Your task to perform on an android device: create a new album in the google photos Image 0: 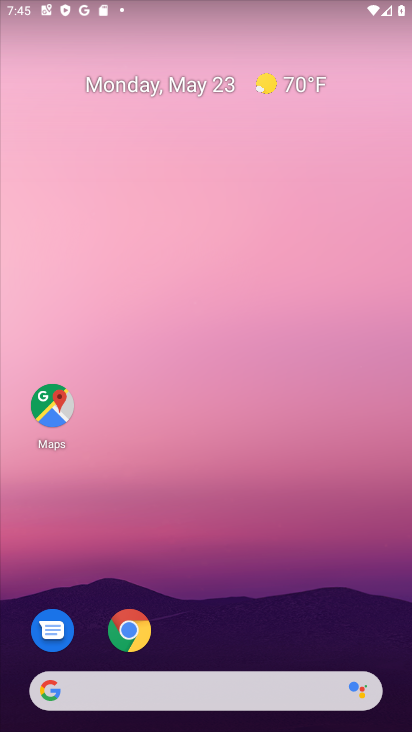
Step 0: drag from (269, 624) to (172, 211)
Your task to perform on an android device: create a new album in the google photos Image 1: 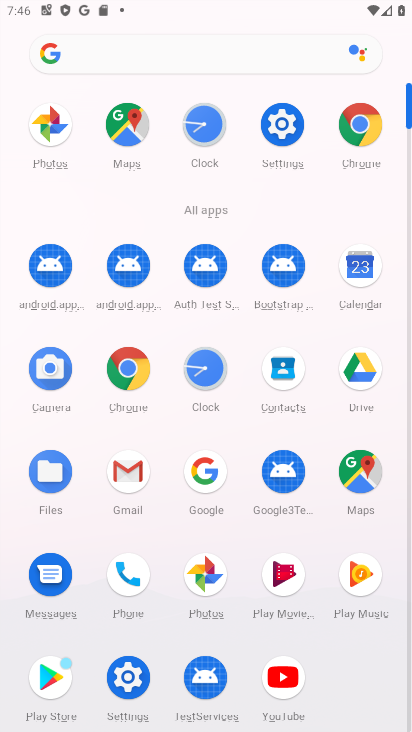
Step 1: click (44, 131)
Your task to perform on an android device: create a new album in the google photos Image 2: 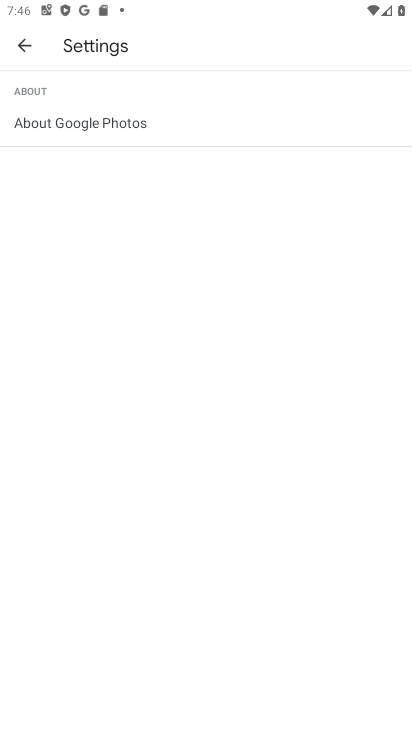
Step 2: click (25, 42)
Your task to perform on an android device: create a new album in the google photos Image 3: 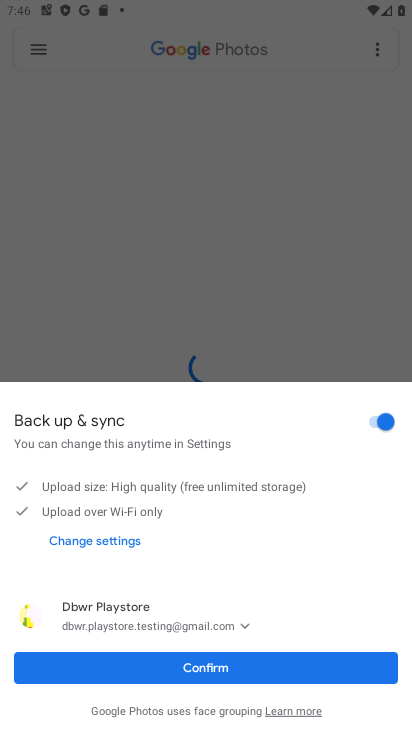
Step 3: click (324, 669)
Your task to perform on an android device: create a new album in the google photos Image 4: 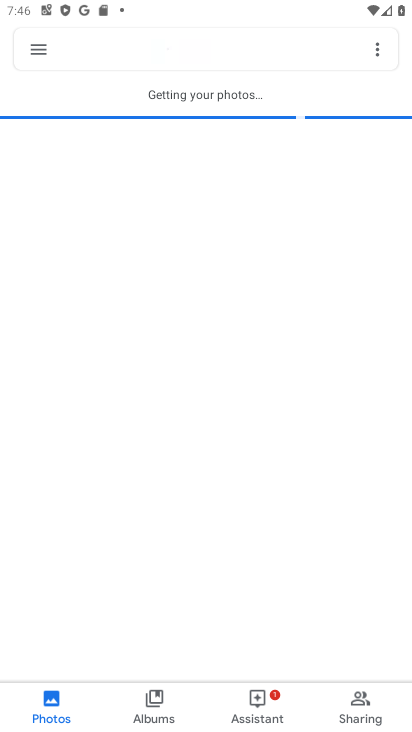
Step 4: click (138, 713)
Your task to perform on an android device: create a new album in the google photos Image 5: 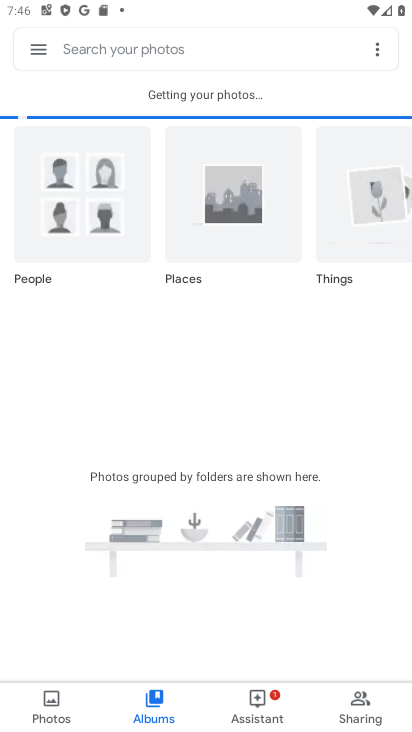
Step 5: click (382, 43)
Your task to perform on an android device: create a new album in the google photos Image 6: 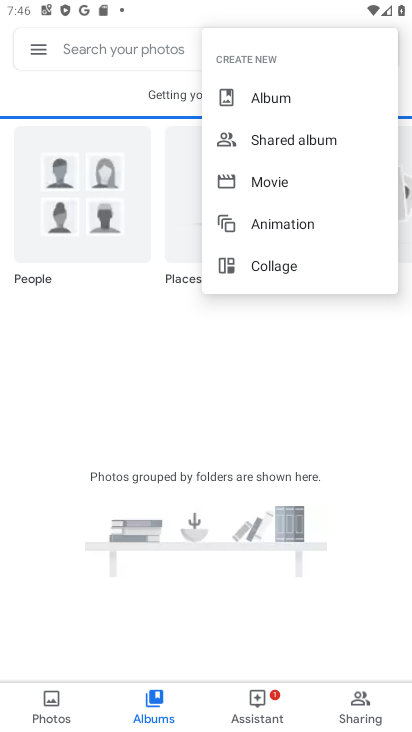
Step 6: click (297, 105)
Your task to perform on an android device: create a new album in the google photos Image 7: 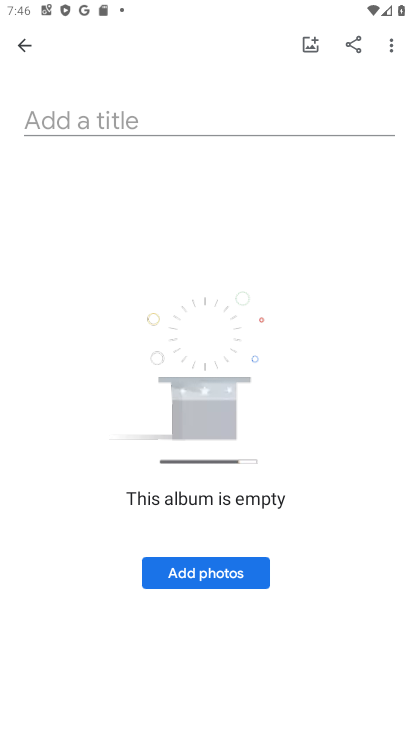
Step 7: click (196, 117)
Your task to perform on an android device: create a new album in the google photos Image 8: 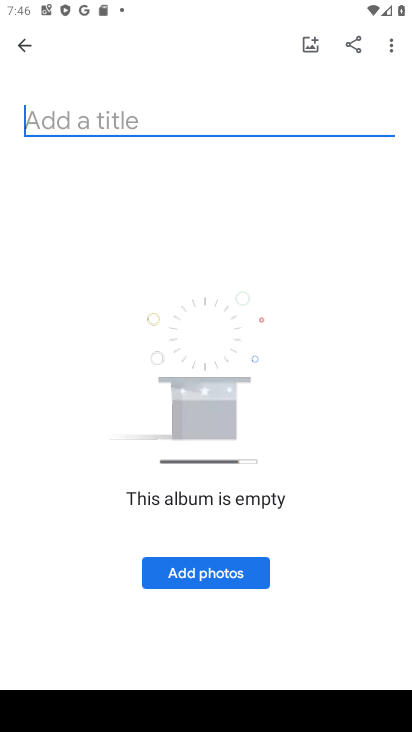
Step 8: type "pooja singhl"
Your task to perform on an android device: create a new album in the google photos Image 9: 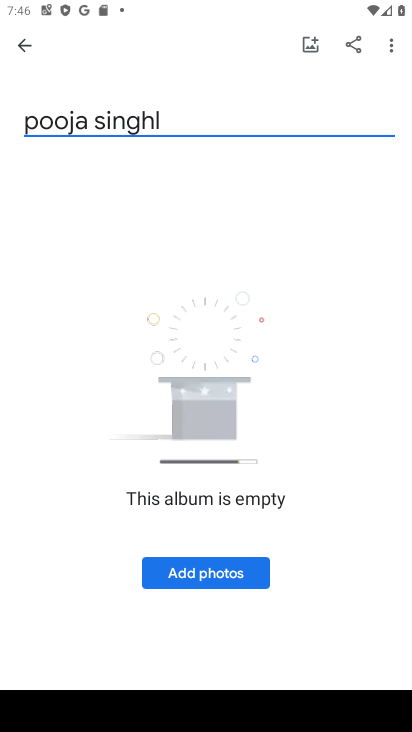
Step 9: click (174, 574)
Your task to perform on an android device: create a new album in the google photos Image 10: 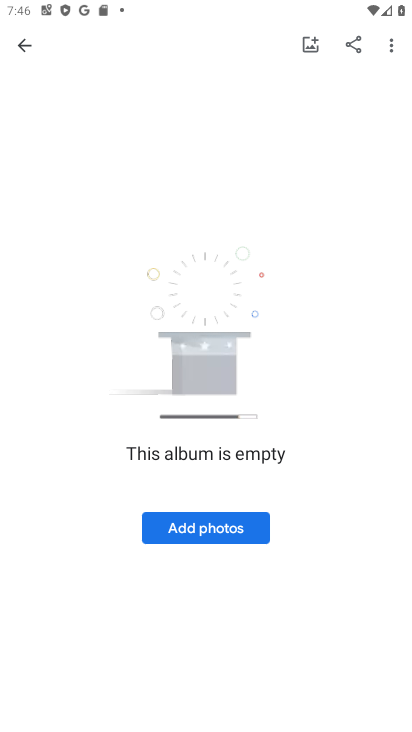
Step 10: click (179, 535)
Your task to perform on an android device: create a new album in the google photos Image 11: 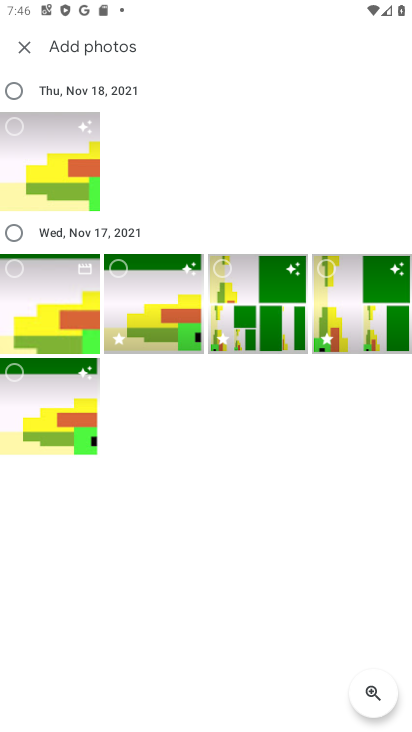
Step 11: click (12, 155)
Your task to perform on an android device: create a new album in the google photos Image 12: 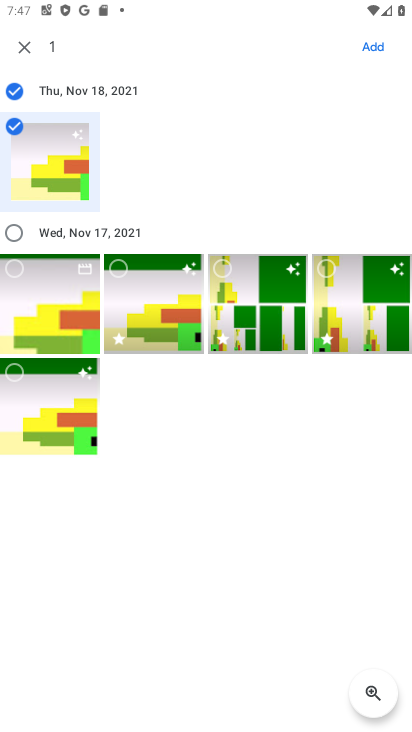
Step 12: click (381, 46)
Your task to perform on an android device: create a new album in the google photos Image 13: 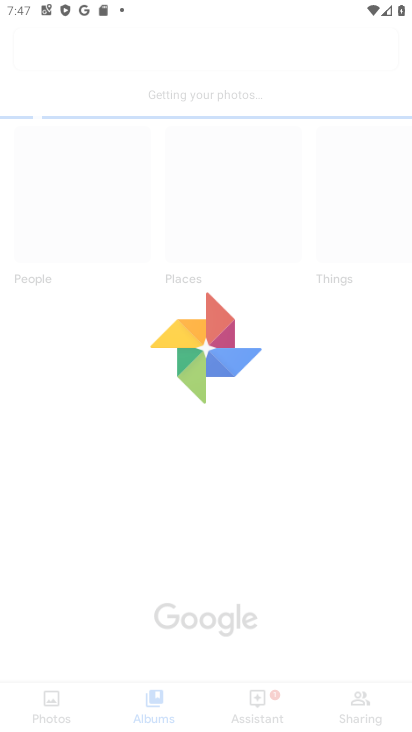
Step 13: task complete